Your task to perform on an android device: set default search engine in the chrome app Image 0: 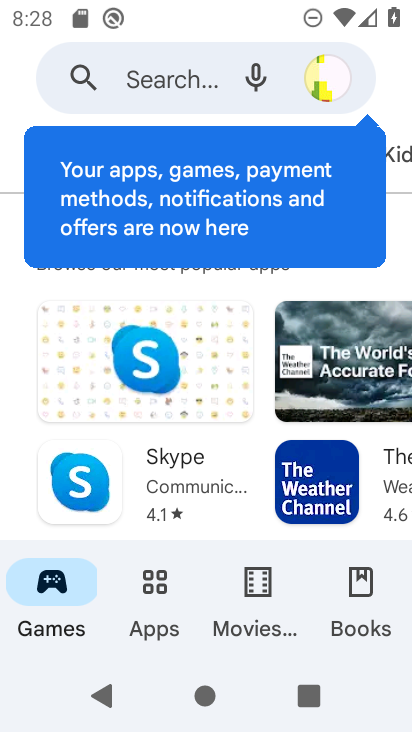
Step 0: press home button
Your task to perform on an android device: set default search engine in the chrome app Image 1: 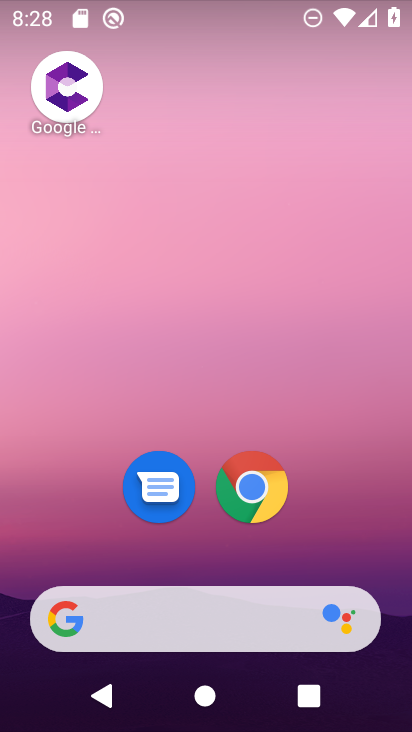
Step 1: click (254, 493)
Your task to perform on an android device: set default search engine in the chrome app Image 2: 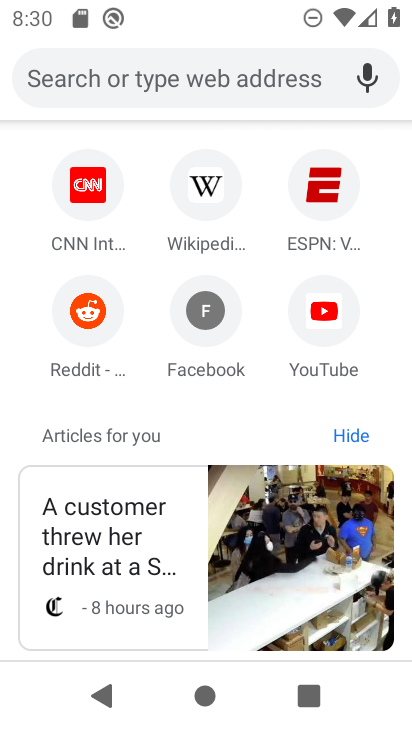
Step 2: click (355, 121)
Your task to perform on an android device: set default search engine in the chrome app Image 3: 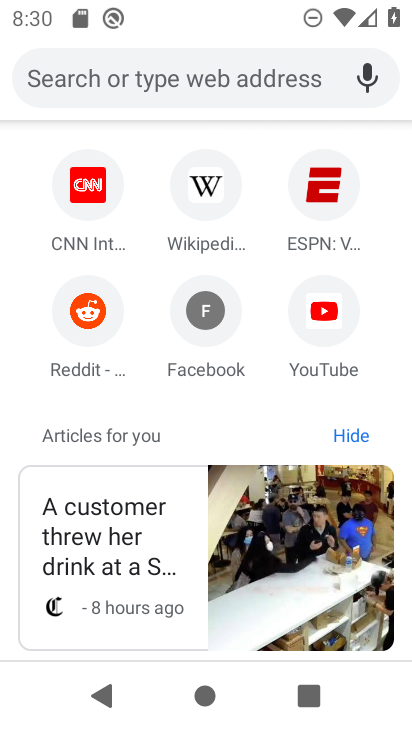
Step 3: drag from (307, 130) to (270, 426)
Your task to perform on an android device: set default search engine in the chrome app Image 4: 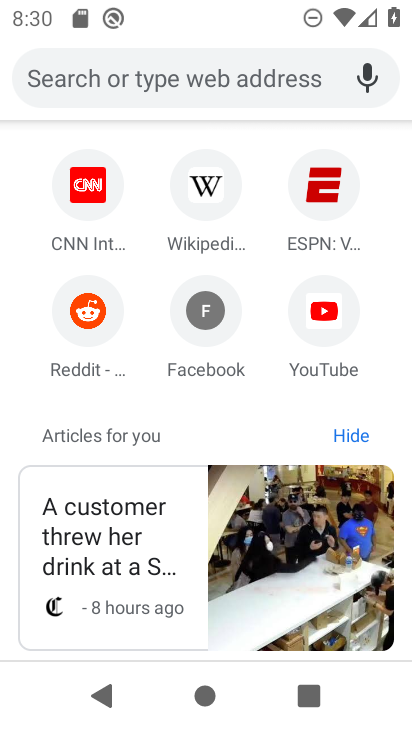
Step 4: drag from (254, 141) to (255, 396)
Your task to perform on an android device: set default search engine in the chrome app Image 5: 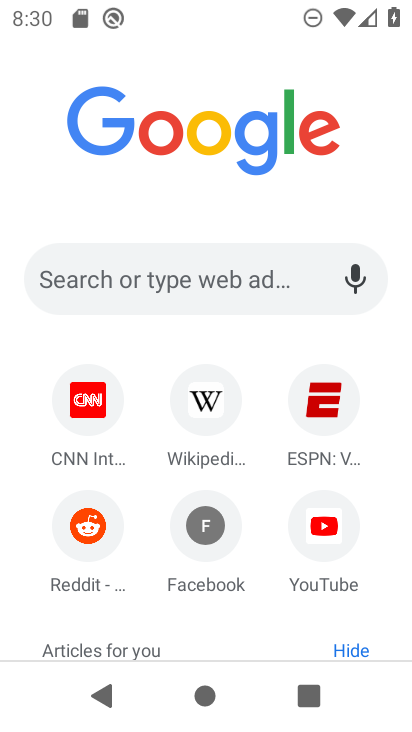
Step 5: drag from (386, 48) to (376, 305)
Your task to perform on an android device: set default search engine in the chrome app Image 6: 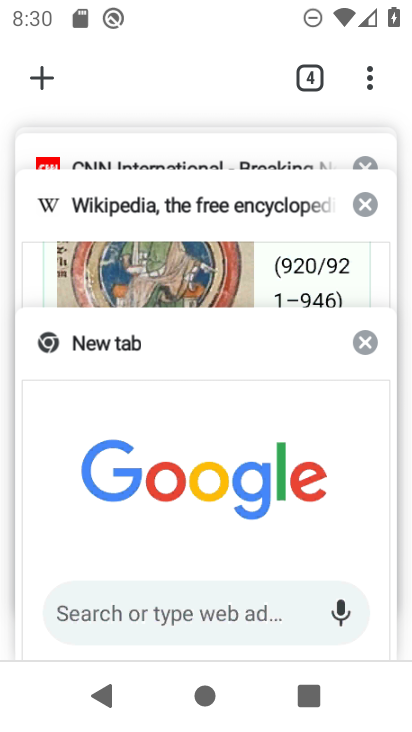
Step 6: click (369, 80)
Your task to perform on an android device: set default search engine in the chrome app Image 7: 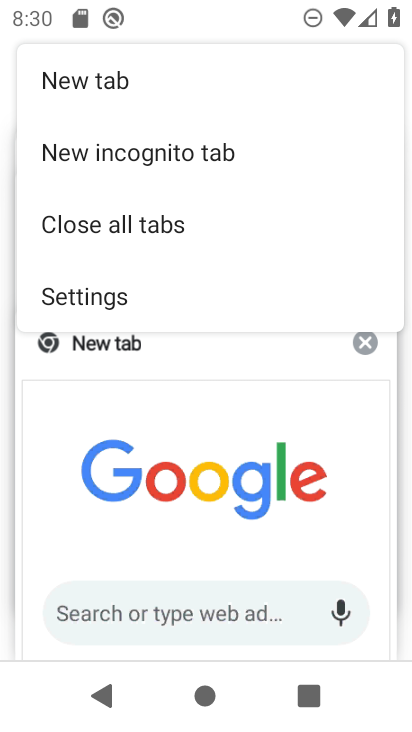
Step 7: click (105, 297)
Your task to perform on an android device: set default search engine in the chrome app Image 8: 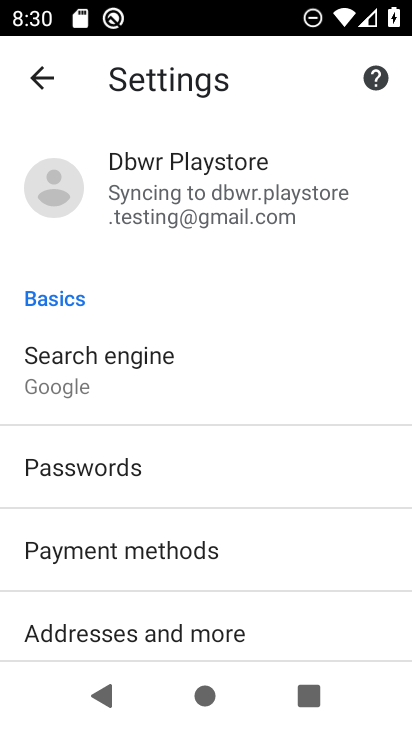
Step 8: click (86, 364)
Your task to perform on an android device: set default search engine in the chrome app Image 9: 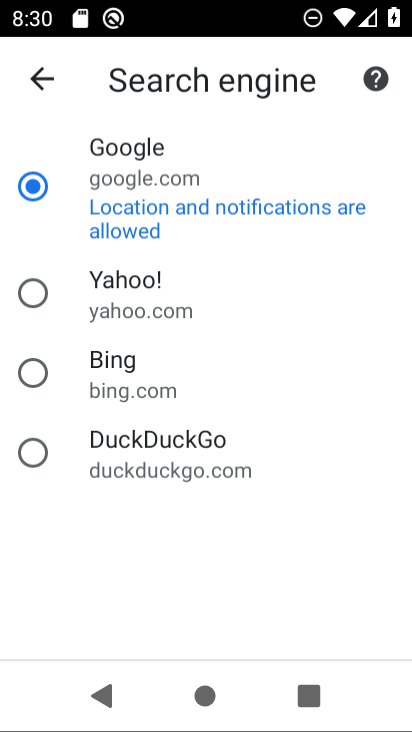
Step 9: click (86, 364)
Your task to perform on an android device: set default search engine in the chrome app Image 10: 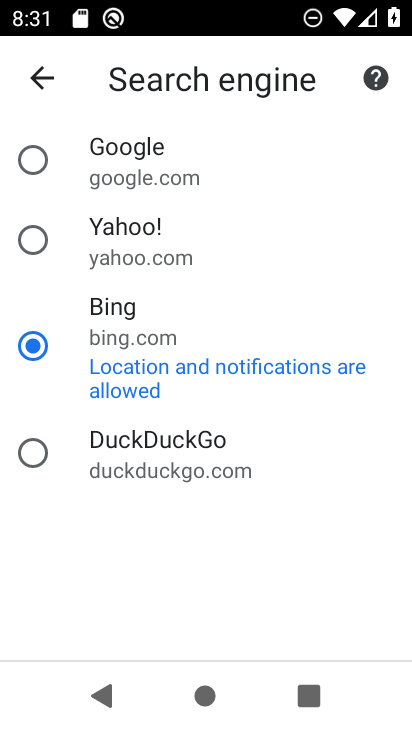
Step 10: click (28, 155)
Your task to perform on an android device: set default search engine in the chrome app Image 11: 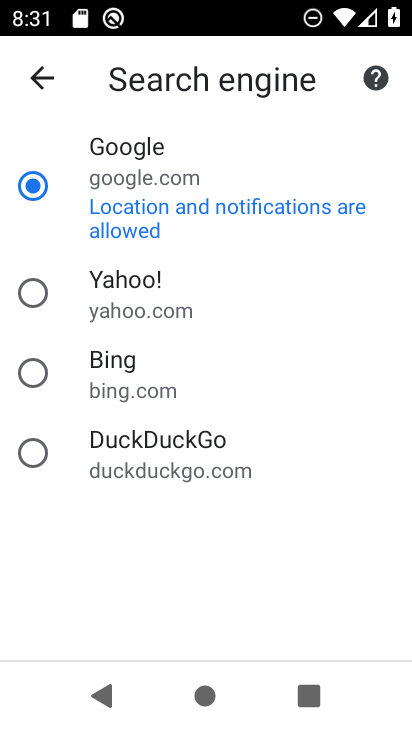
Step 11: task complete